Your task to perform on an android device: Open the stopwatch Image 0: 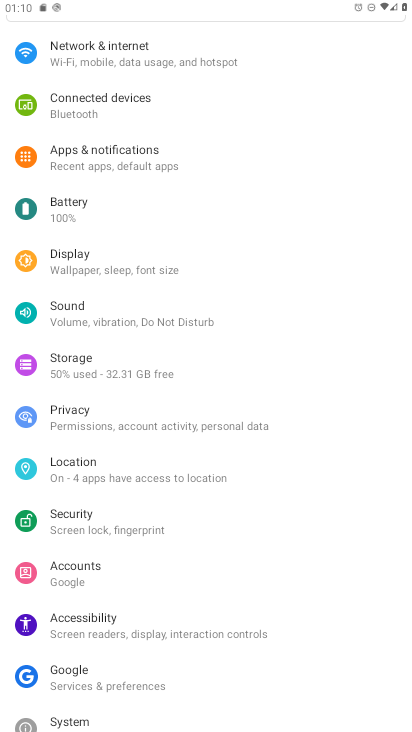
Step 0: press home button
Your task to perform on an android device: Open the stopwatch Image 1: 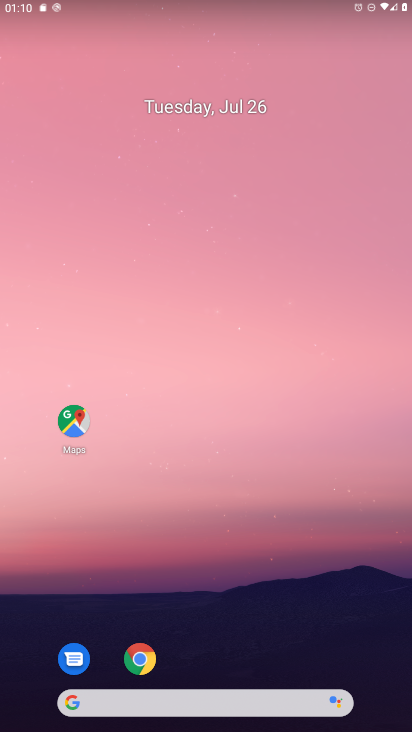
Step 1: drag from (271, 628) to (308, 59)
Your task to perform on an android device: Open the stopwatch Image 2: 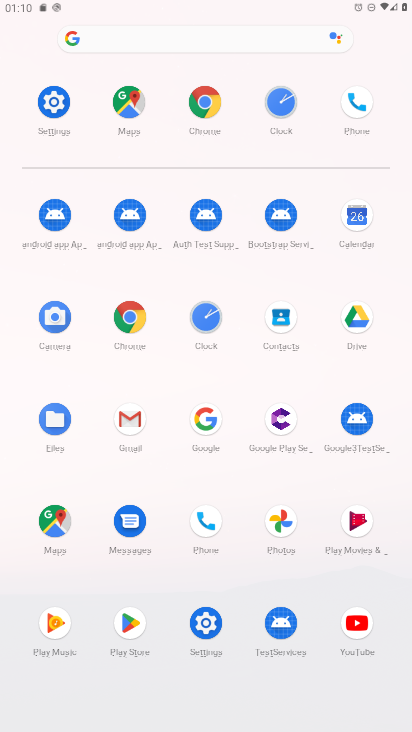
Step 2: click (209, 320)
Your task to perform on an android device: Open the stopwatch Image 3: 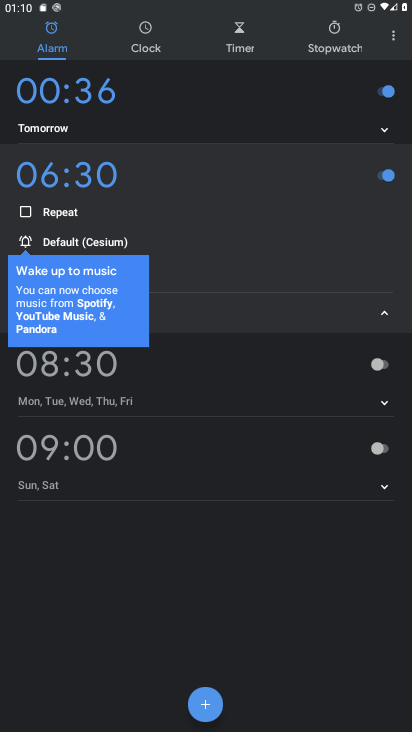
Step 3: click (331, 44)
Your task to perform on an android device: Open the stopwatch Image 4: 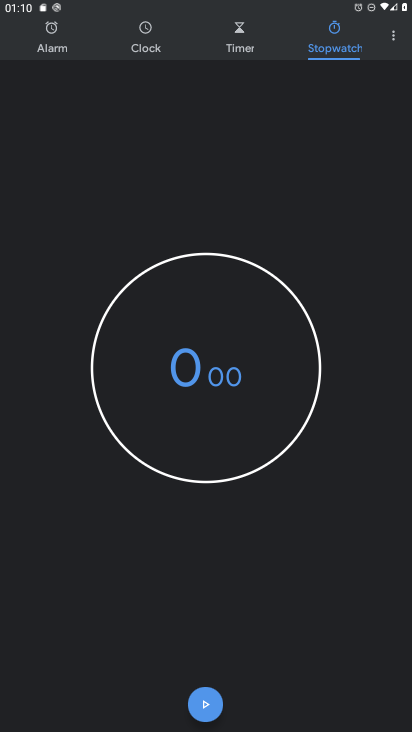
Step 4: click (198, 699)
Your task to perform on an android device: Open the stopwatch Image 5: 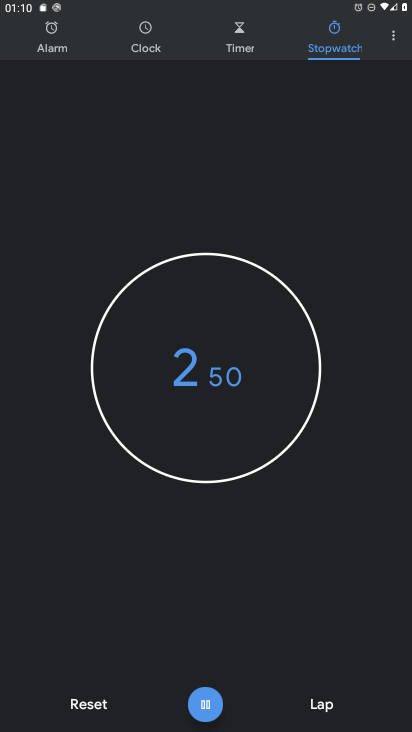
Step 5: task complete